Your task to perform on an android device: turn on sleep mode Image 0: 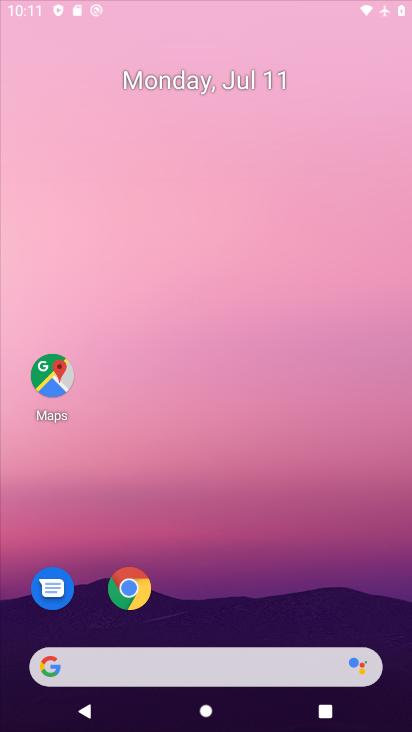
Step 0: click (129, 593)
Your task to perform on an android device: turn on sleep mode Image 1: 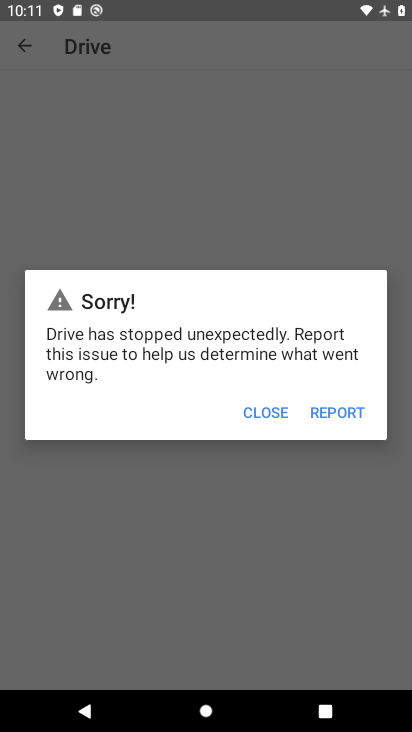
Step 1: press home button
Your task to perform on an android device: turn on sleep mode Image 2: 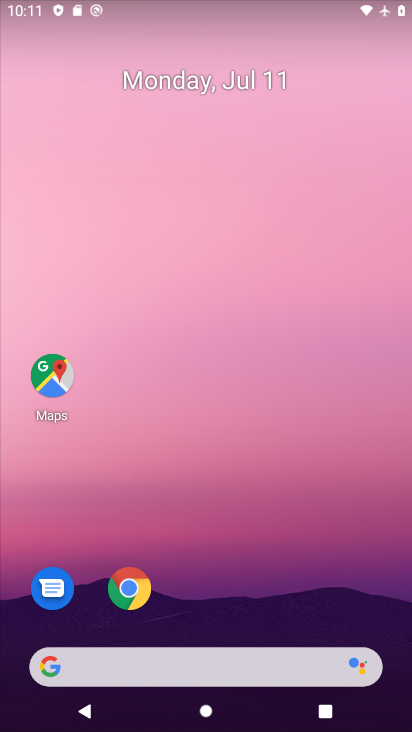
Step 2: drag from (194, 583) to (299, 3)
Your task to perform on an android device: turn on sleep mode Image 3: 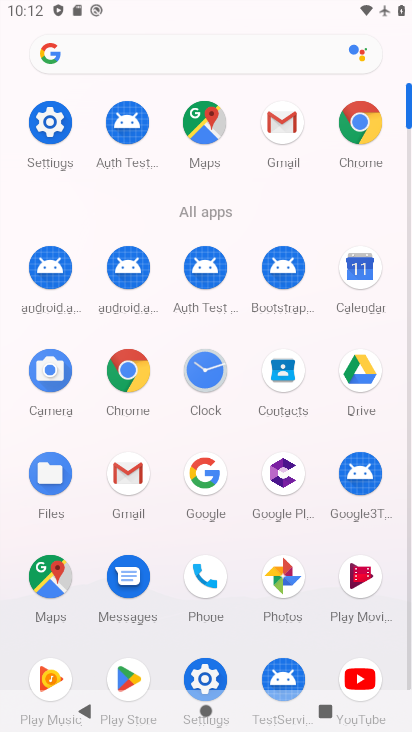
Step 3: click (61, 126)
Your task to perform on an android device: turn on sleep mode Image 4: 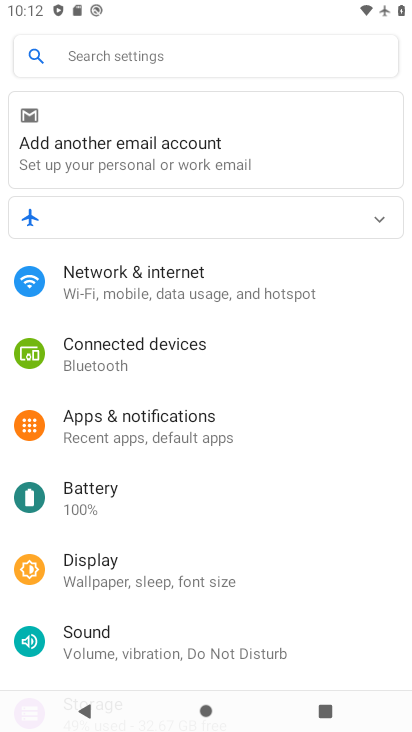
Step 4: click (146, 576)
Your task to perform on an android device: turn on sleep mode Image 5: 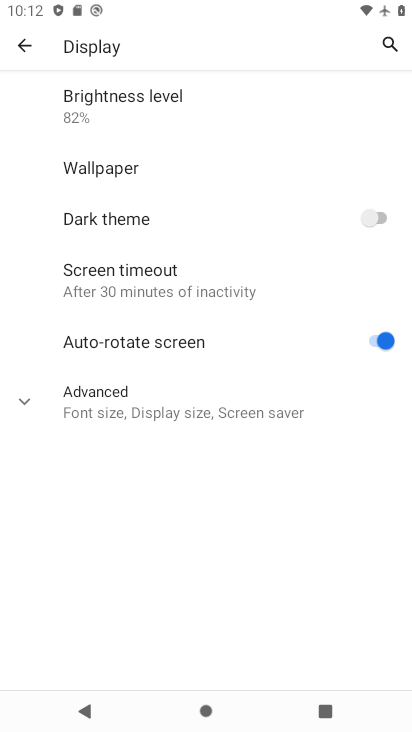
Step 5: click (80, 406)
Your task to perform on an android device: turn on sleep mode Image 6: 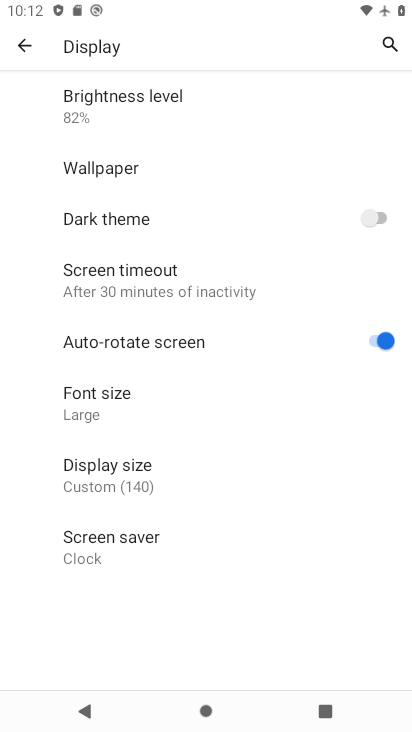
Step 6: task complete